Your task to perform on an android device: toggle notifications settings in the gmail app Image 0: 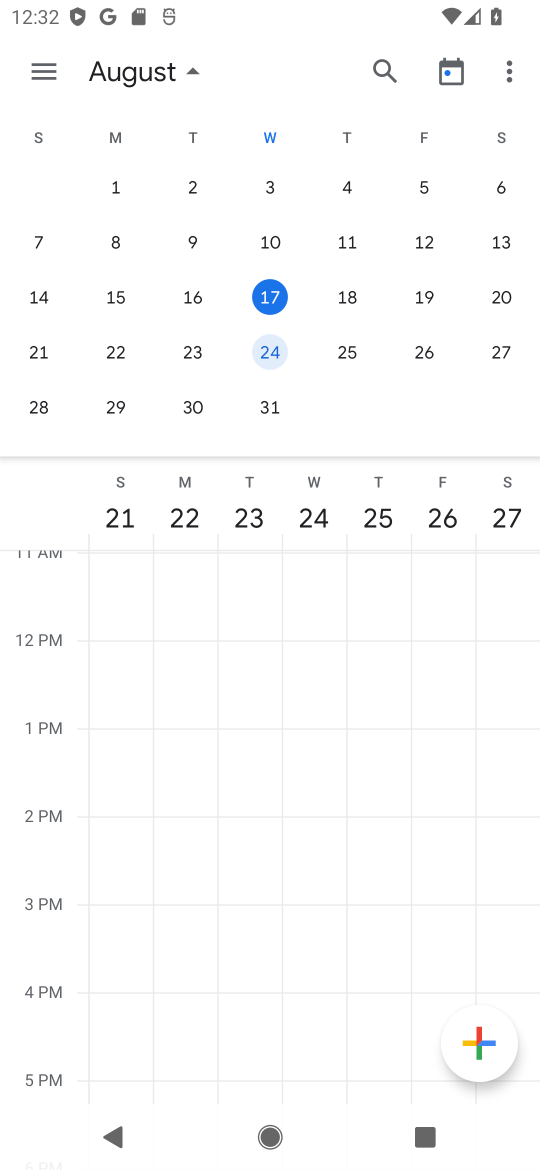
Step 0: press home button
Your task to perform on an android device: toggle notifications settings in the gmail app Image 1: 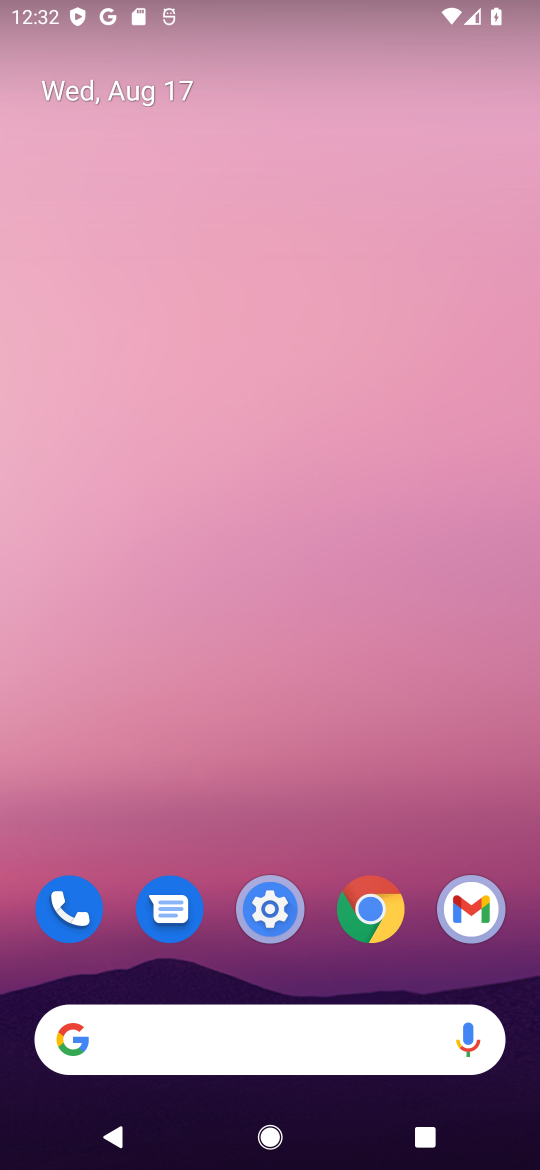
Step 1: click (474, 902)
Your task to perform on an android device: toggle notifications settings in the gmail app Image 2: 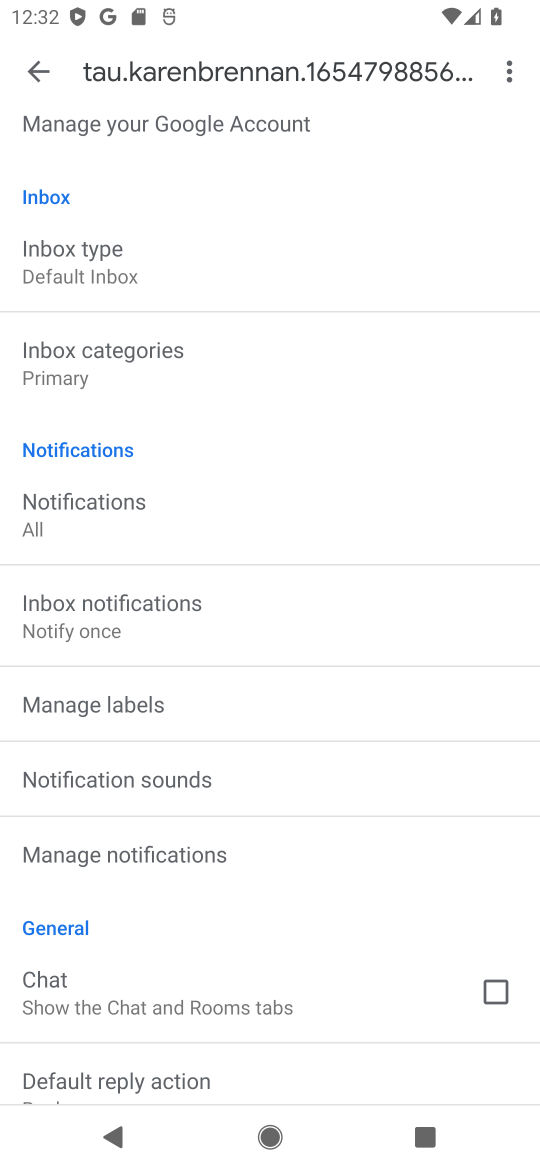
Step 2: click (43, 66)
Your task to perform on an android device: toggle notifications settings in the gmail app Image 3: 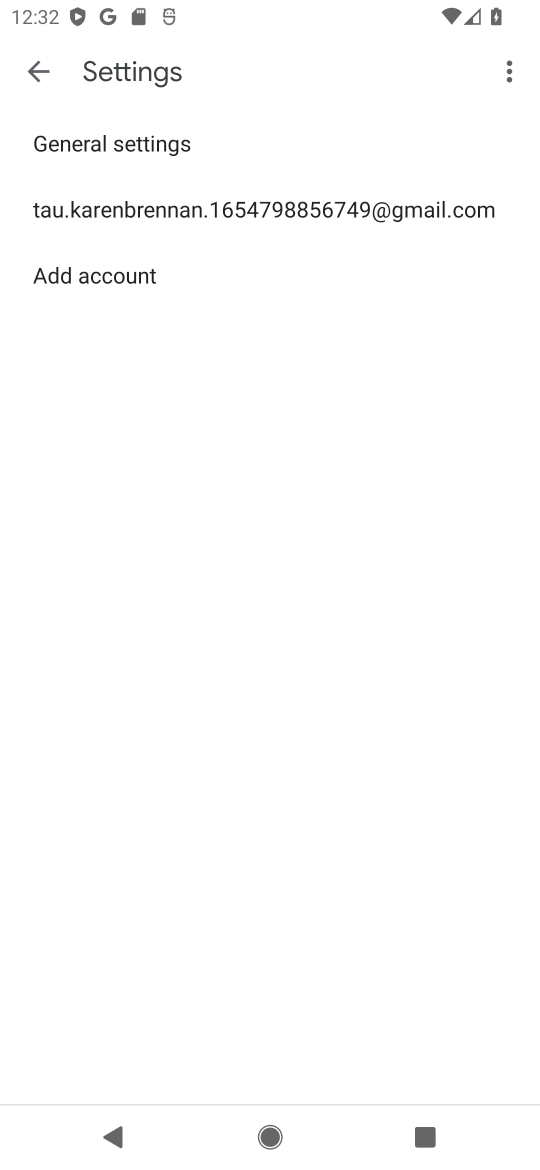
Step 3: click (36, 62)
Your task to perform on an android device: toggle notifications settings in the gmail app Image 4: 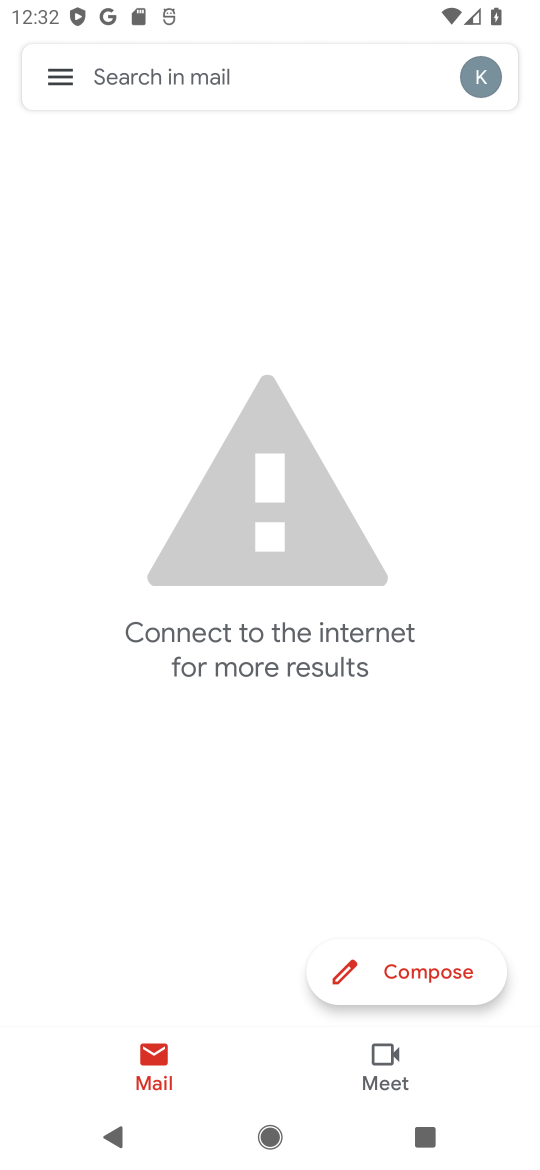
Step 4: click (57, 71)
Your task to perform on an android device: toggle notifications settings in the gmail app Image 5: 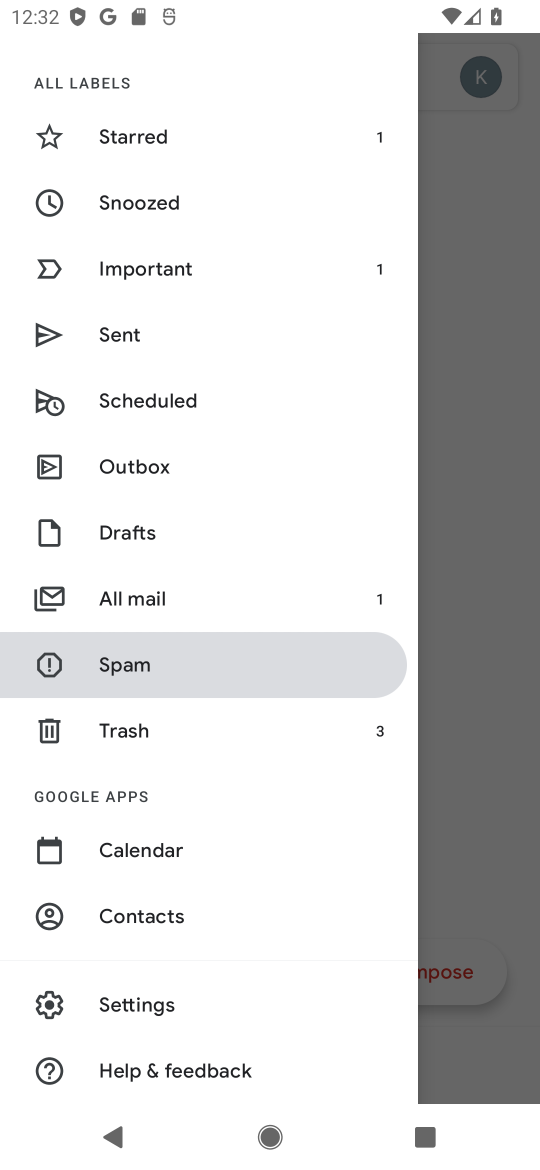
Step 5: click (129, 997)
Your task to perform on an android device: toggle notifications settings in the gmail app Image 6: 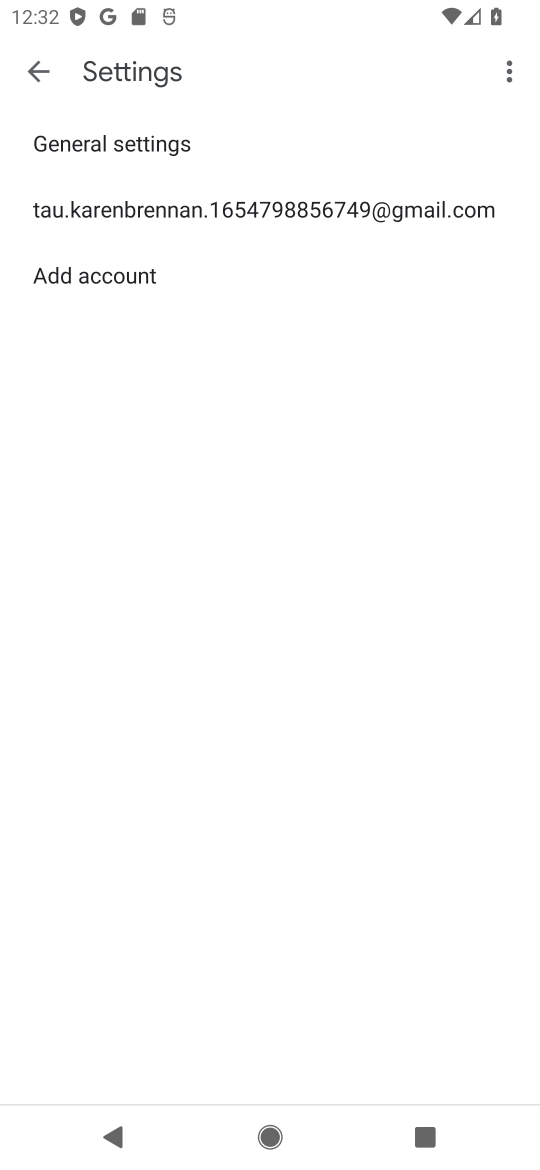
Step 6: click (124, 144)
Your task to perform on an android device: toggle notifications settings in the gmail app Image 7: 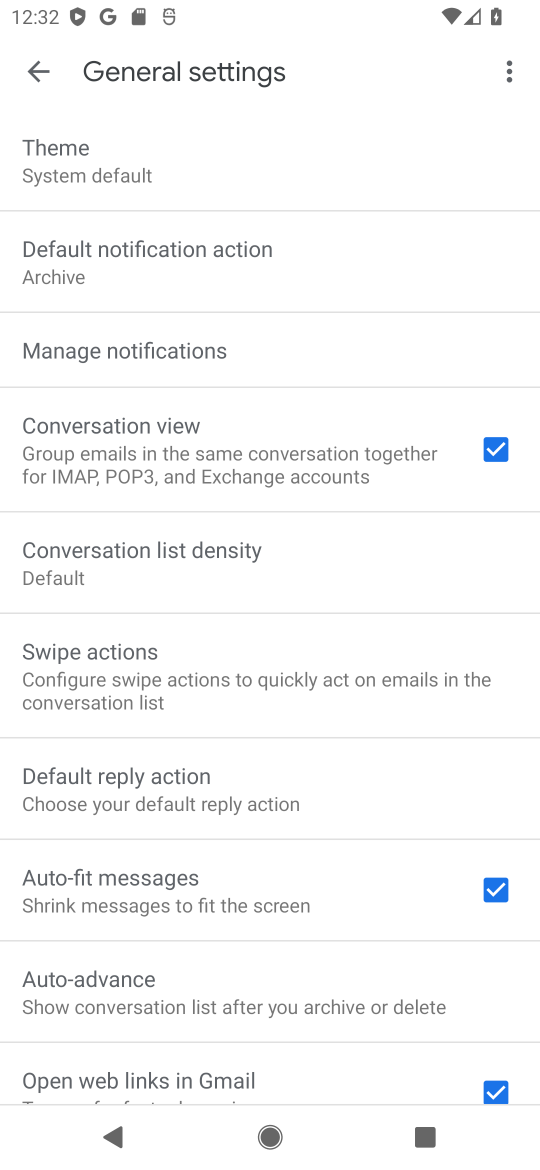
Step 7: click (145, 349)
Your task to perform on an android device: toggle notifications settings in the gmail app Image 8: 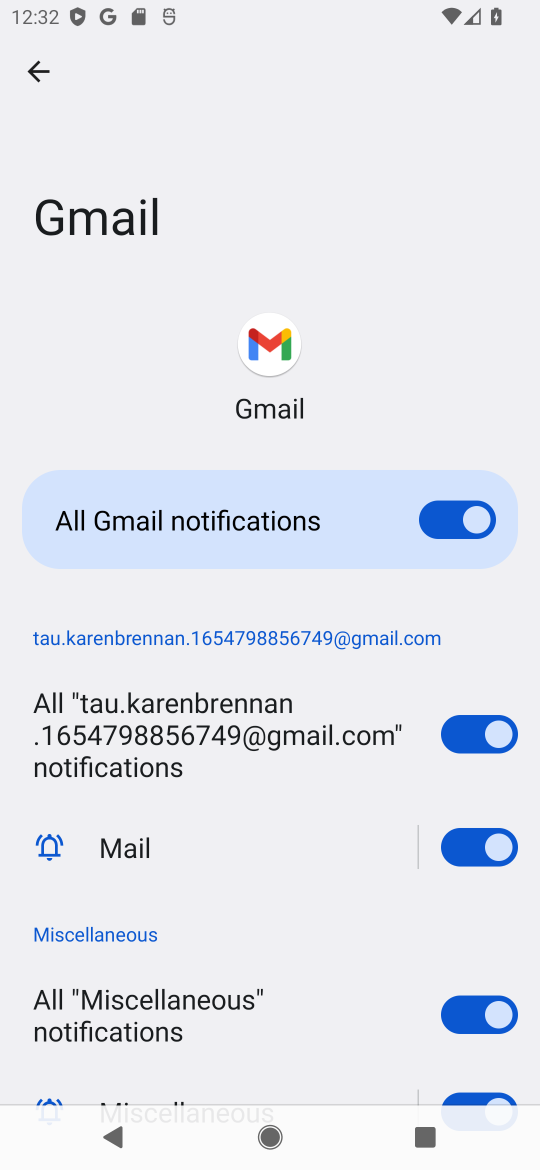
Step 8: click (467, 526)
Your task to perform on an android device: toggle notifications settings in the gmail app Image 9: 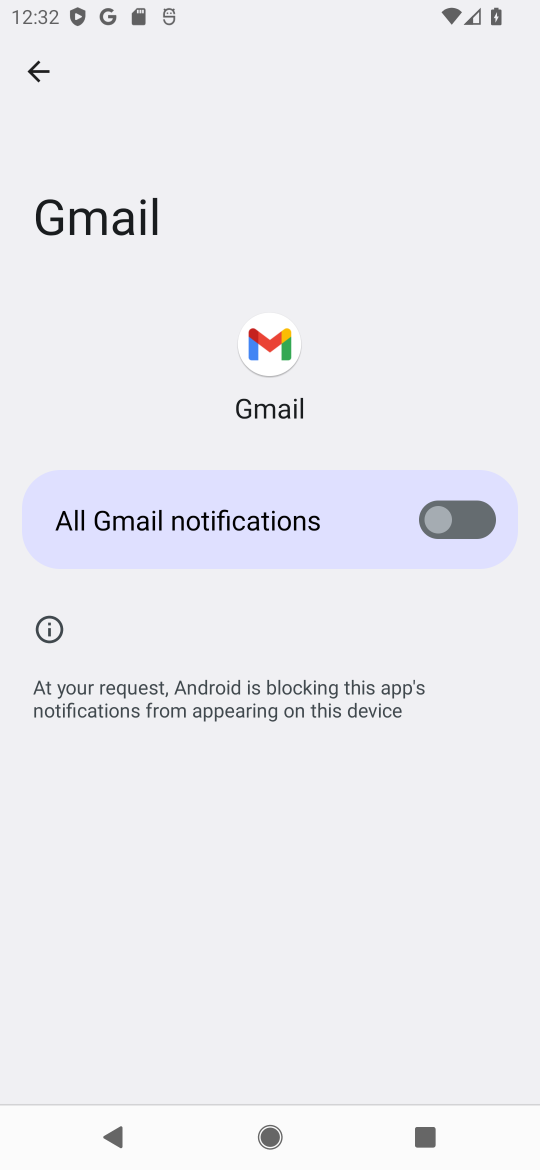
Step 9: task complete